Your task to perform on an android device: Go to Android settings Image 0: 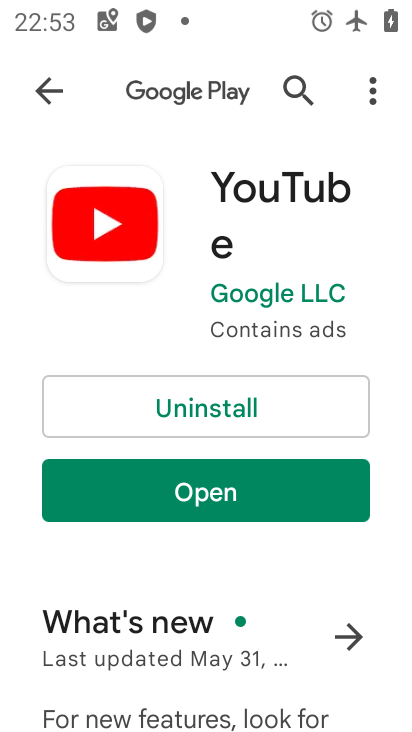
Step 0: press home button
Your task to perform on an android device: Go to Android settings Image 1: 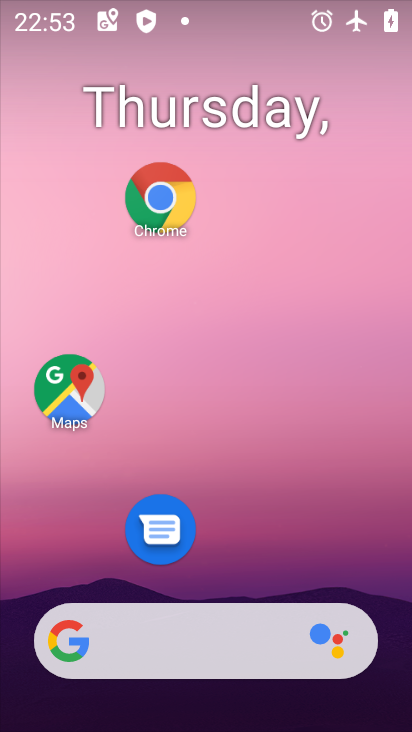
Step 1: drag from (288, 502) to (256, 52)
Your task to perform on an android device: Go to Android settings Image 2: 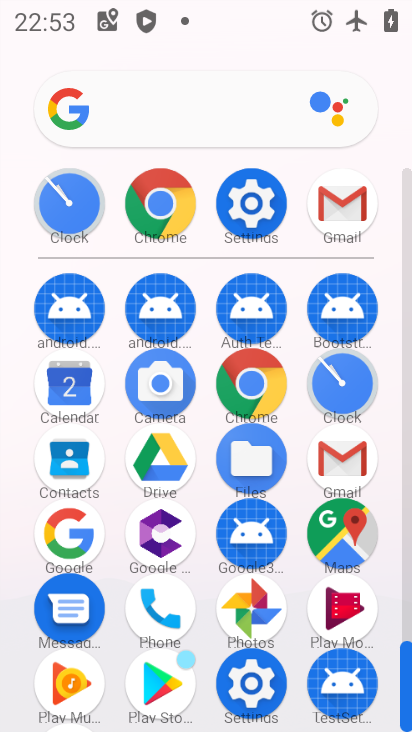
Step 2: click (254, 198)
Your task to perform on an android device: Go to Android settings Image 3: 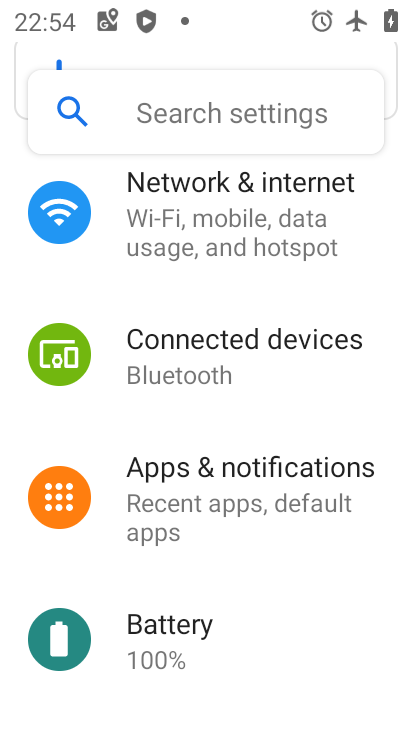
Step 3: task complete